Your task to perform on an android device: turn off location Image 0: 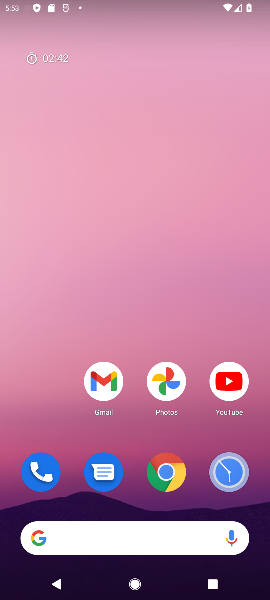
Step 0: press home button
Your task to perform on an android device: turn off location Image 1: 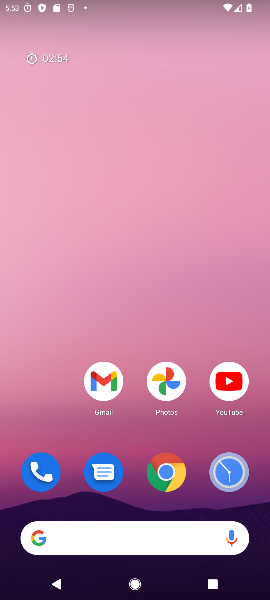
Step 1: drag from (137, 505) to (153, 96)
Your task to perform on an android device: turn off location Image 2: 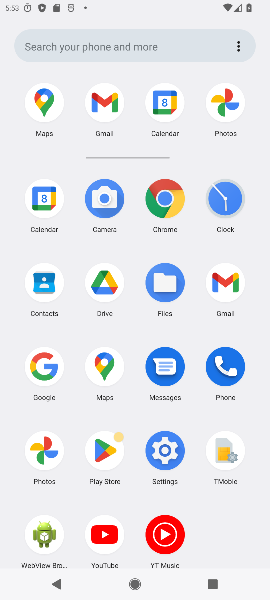
Step 2: click (166, 462)
Your task to perform on an android device: turn off location Image 3: 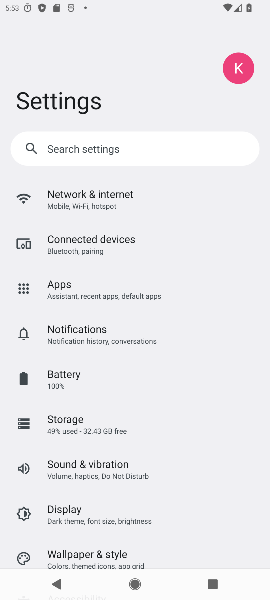
Step 3: drag from (185, 454) to (162, 147)
Your task to perform on an android device: turn off location Image 4: 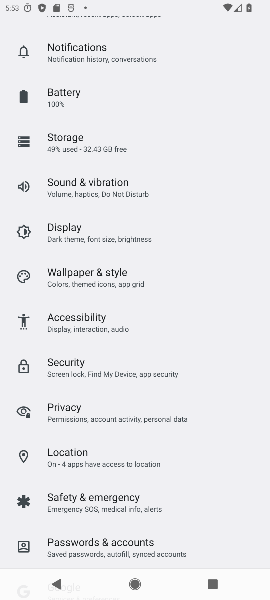
Step 4: click (70, 459)
Your task to perform on an android device: turn off location Image 5: 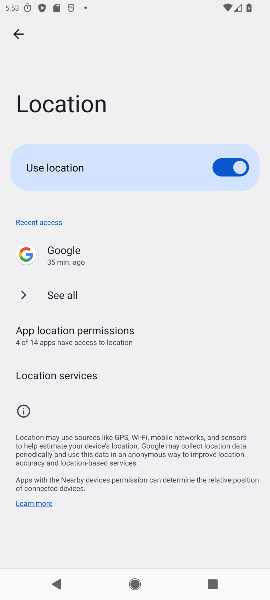
Step 5: task complete